Your task to perform on an android device: Go to privacy settings Image 0: 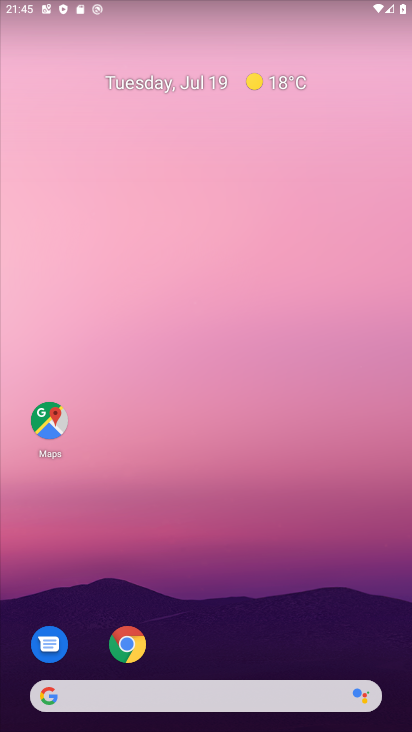
Step 0: drag from (212, 713) to (191, 363)
Your task to perform on an android device: Go to privacy settings Image 1: 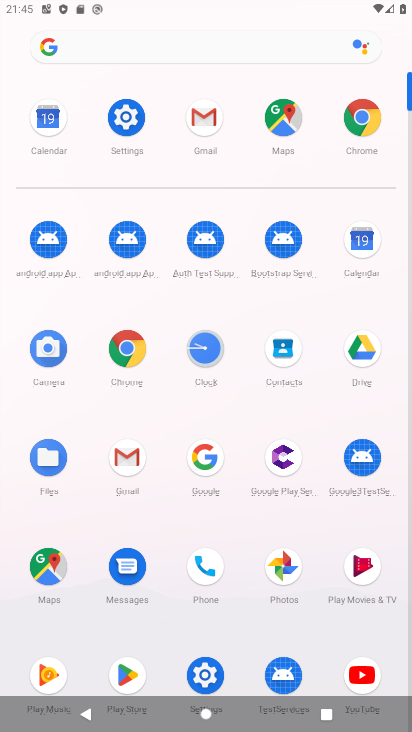
Step 1: click (125, 113)
Your task to perform on an android device: Go to privacy settings Image 2: 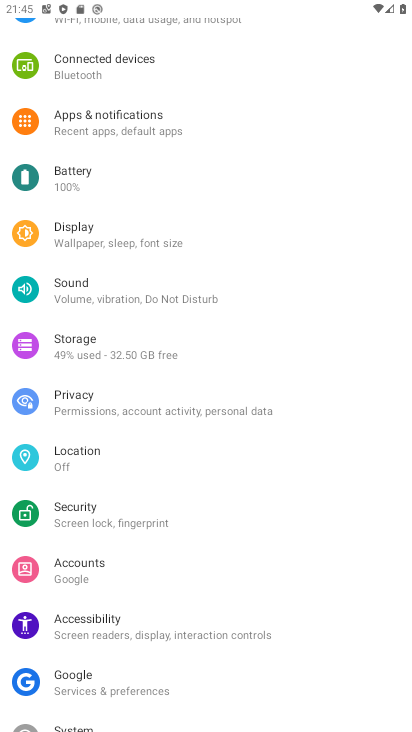
Step 2: click (73, 406)
Your task to perform on an android device: Go to privacy settings Image 3: 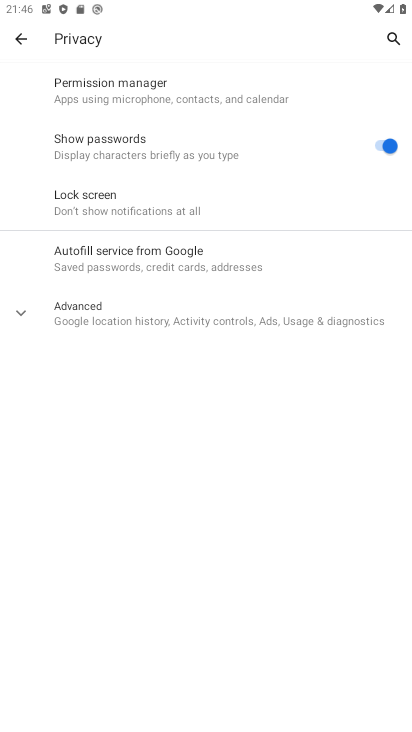
Step 3: task complete